Your task to perform on an android device: Go to battery settings Image 0: 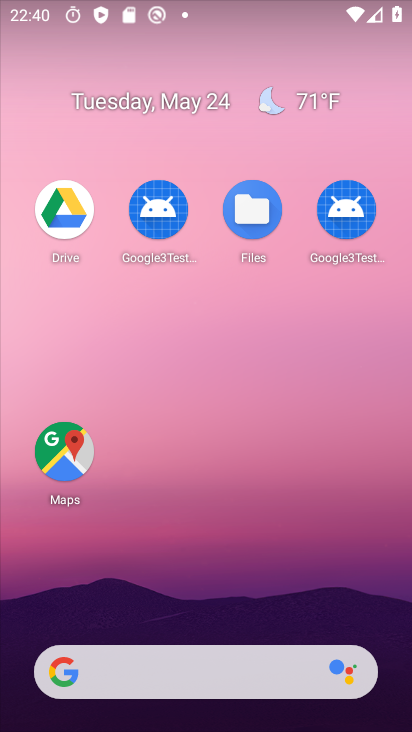
Step 0: drag from (231, 596) to (263, 9)
Your task to perform on an android device: Go to battery settings Image 1: 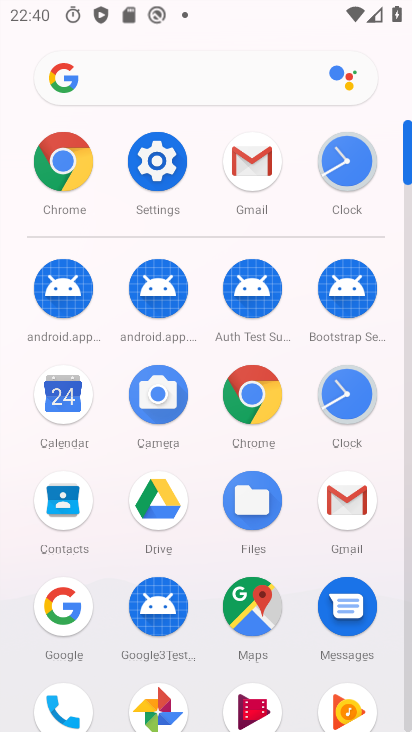
Step 1: click (158, 172)
Your task to perform on an android device: Go to battery settings Image 2: 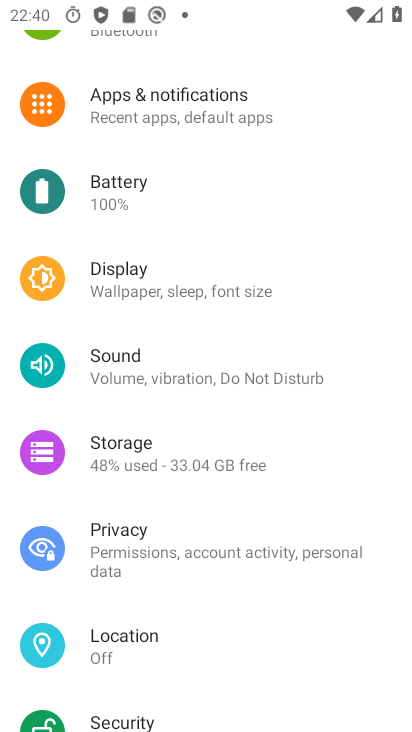
Step 2: click (129, 193)
Your task to perform on an android device: Go to battery settings Image 3: 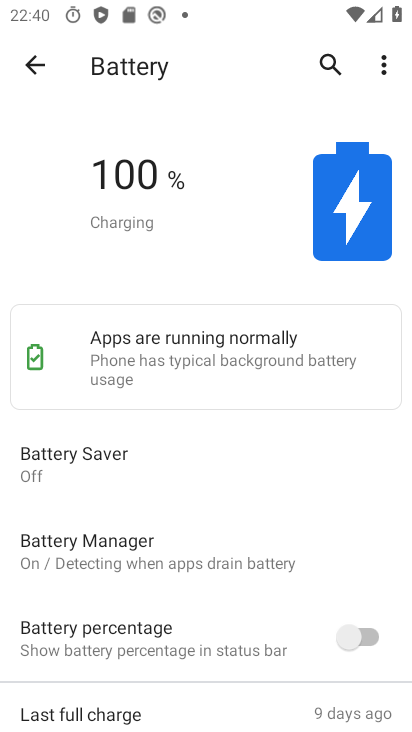
Step 3: task complete